Your task to perform on an android device: empty trash in the gmail app Image 0: 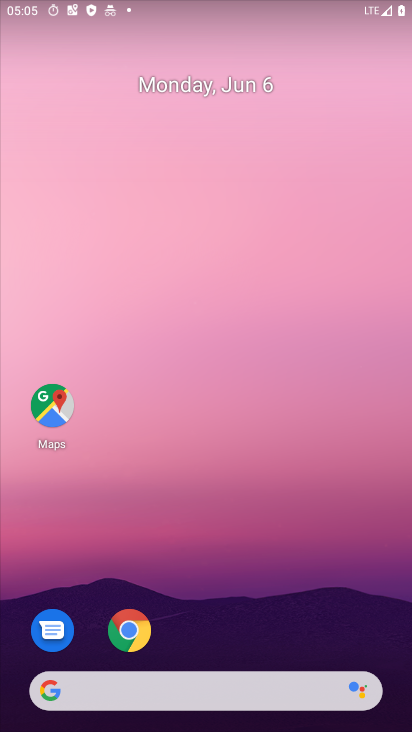
Step 0: drag from (259, 636) to (383, 97)
Your task to perform on an android device: empty trash in the gmail app Image 1: 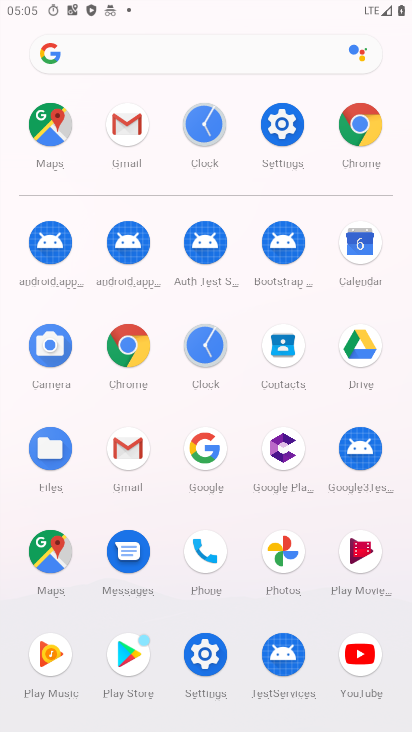
Step 1: click (125, 449)
Your task to perform on an android device: empty trash in the gmail app Image 2: 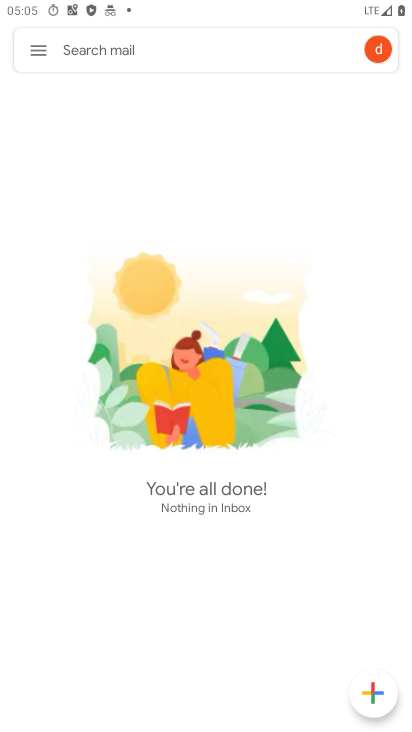
Step 2: click (47, 49)
Your task to perform on an android device: empty trash in the gmail app Image 3: 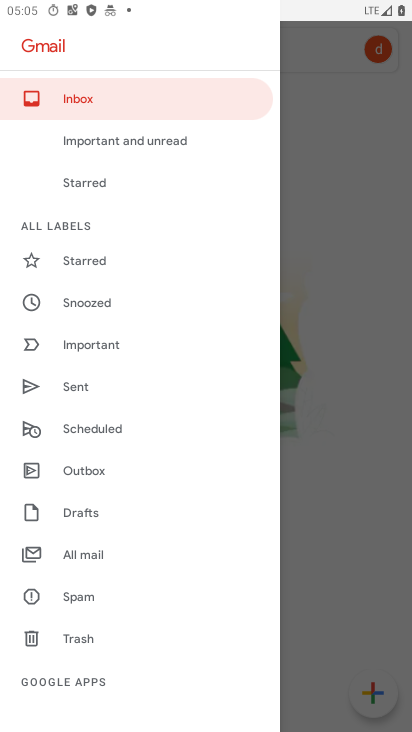
Step 3: click (77, 638)
Your task to perform on an android device: empty trash in the gmail app Image 4: 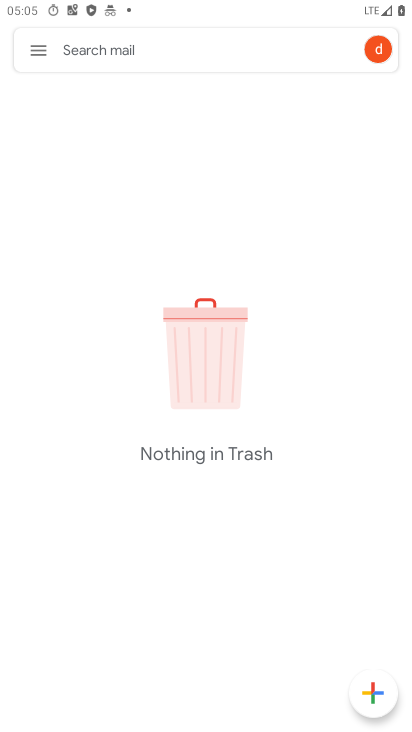
Step 4: task complete